Your task to perform on an android device: Do I have any events tomorrow? Image 0: 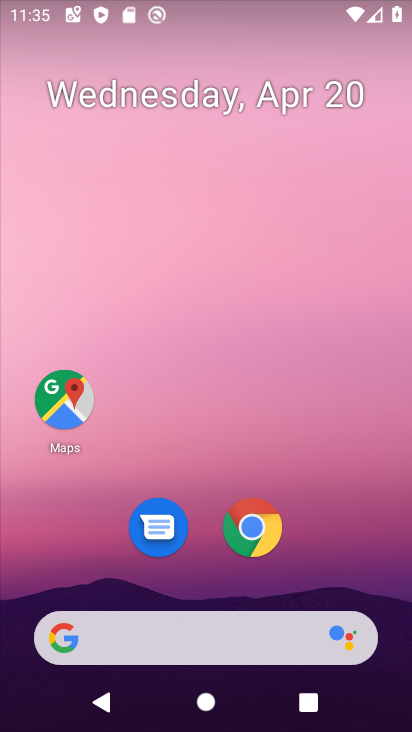
Step 0: drag from (319, 550) to (350, 100)
Your task to perform on an android device: Do I have any events tomorrow? Image 1: 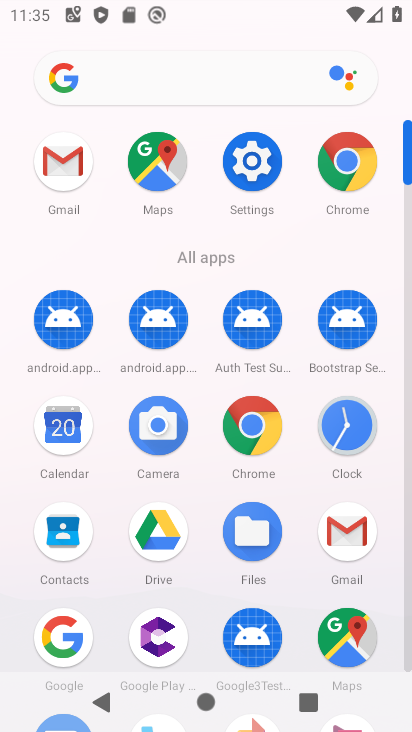
Step 1: click (258, 430)
Your task to perform on an android device: Do I have any events tomorrow? Image 2: 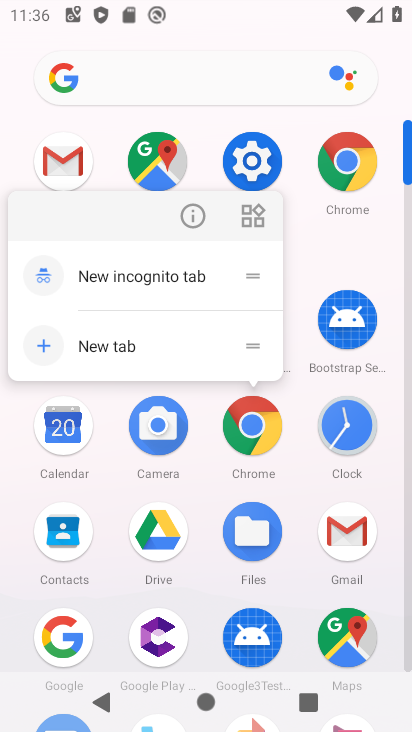
Step 2: click (74, 434)
Your task to perform on an android device: Do I have any events tomorrow? Image 3: 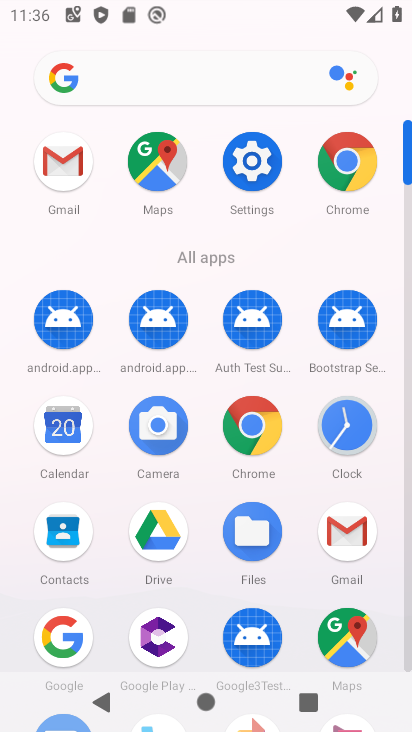
Step 3: click (76, 438)
Your task to perform on an android device: Do I have any events tomorrow? Image 4: 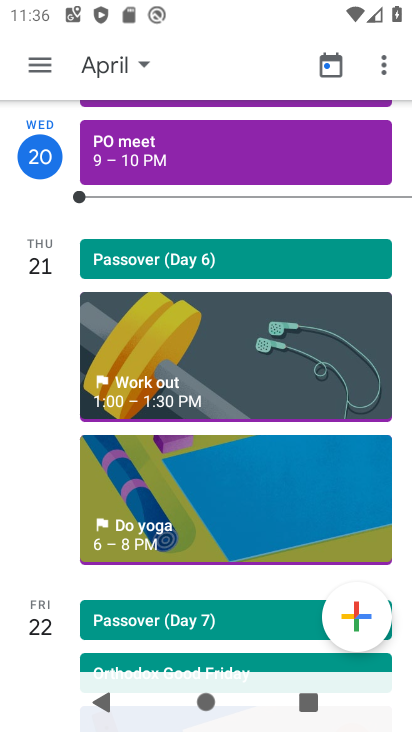
Step 4: task complete